Your task to perform on an android device: turn off wifi Image 0: 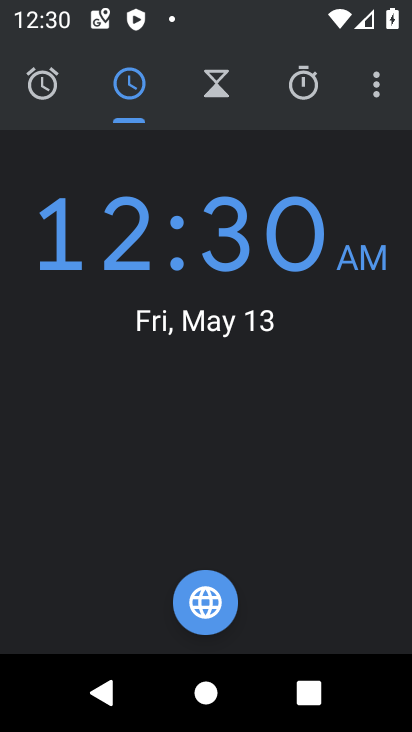
Step 0: press home button
Your task to perform on an android device: turn off wifi Image 1: 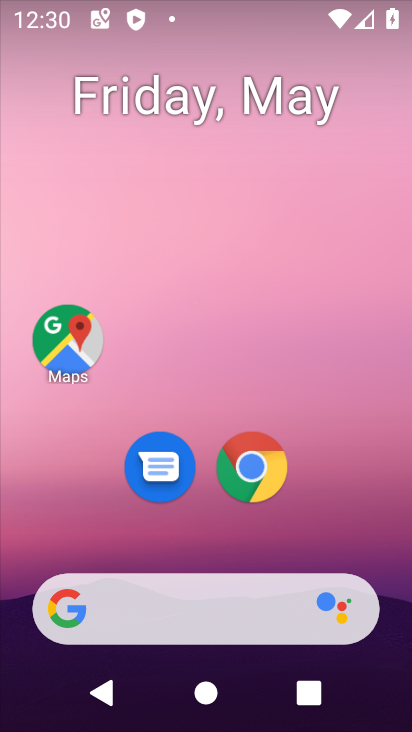
Step 1: drag from (327, 534) to (247, 129)
Your task to perform on an android device: turn off wifi Image 2: 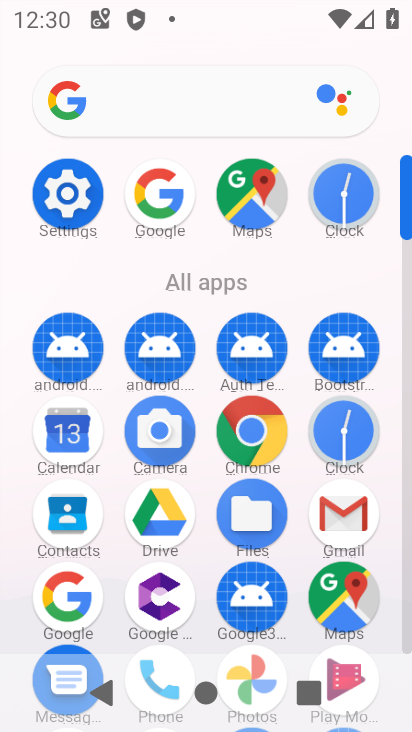
Step 2: click (68, 192)
Your task to perform on an android device: turn off wifi Image 3: 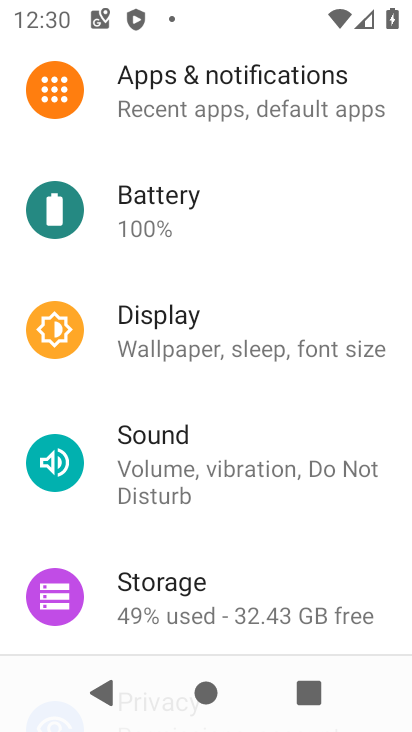
Step 3: drag from (201, 144) to (201, 257)
Your task to perform on an android device: turn off wifi Image 4: 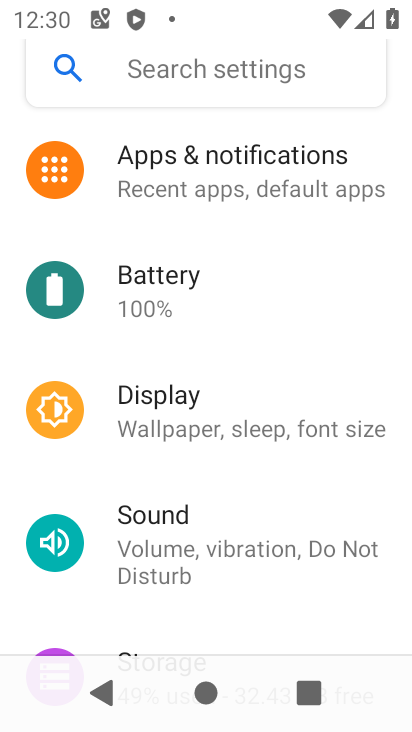
Step 4: drag from (220, 161) to (249, 272)
Your task to perform on an android device: turn off wifi Image 5: 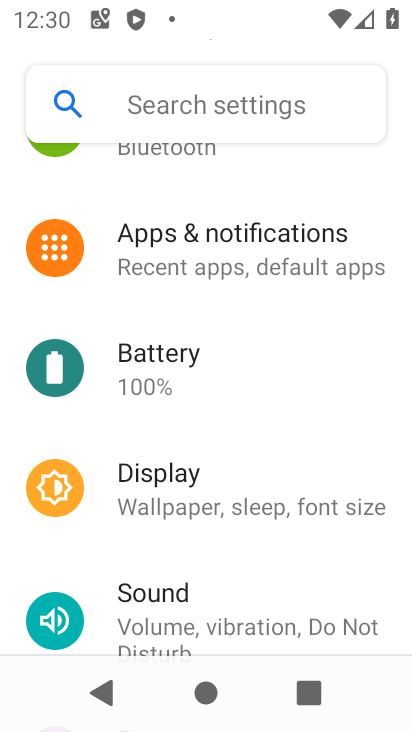
Step 5: drag from (222, 185) to (244, 312)
Your task to perform on an android device: turn off wifi Image 6: 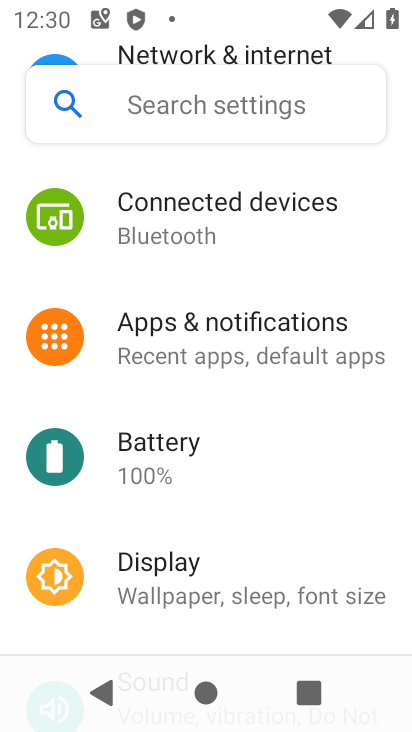
Step 6: drag from (253, 229) to (283, 365)
Your task to perform on an android device: turn off wifi Image 7: 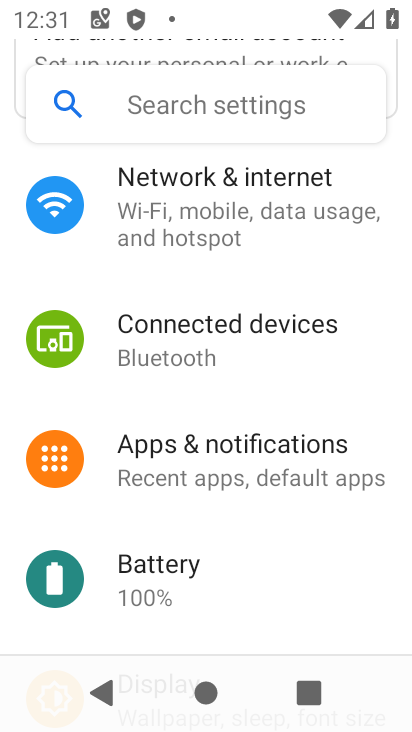
Step 7: drag from (259, 268) to (290, 379)
Your task to perform on an android device: turn off wifi Image 8: 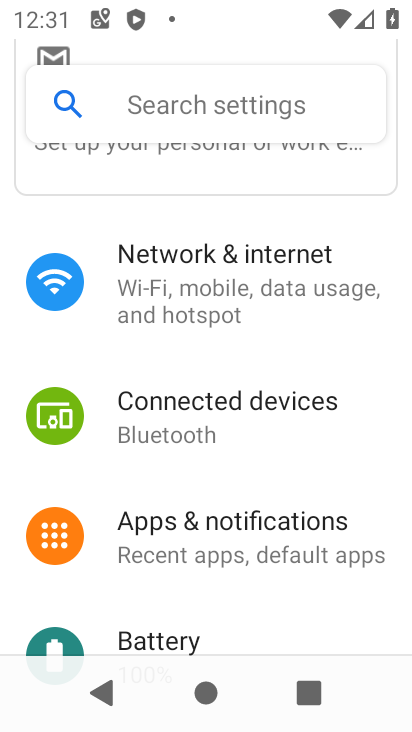
Step 8: click (239, 268)
Your task to perform on an android device: turn off wifi Image 9: 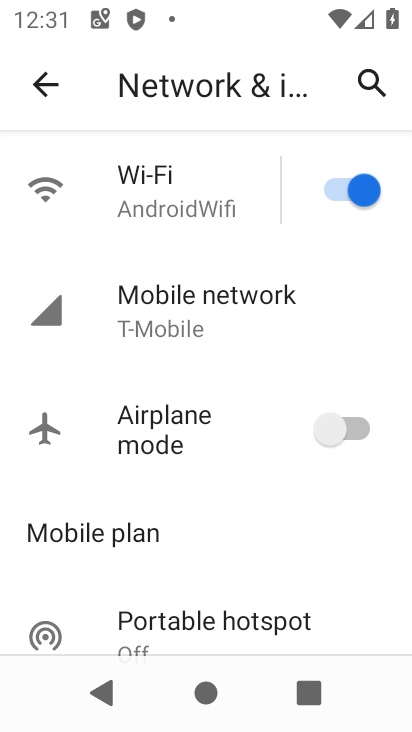
Step 9: click (361, 187)
Your task to perform on an android device: turn off wifi Image 10: 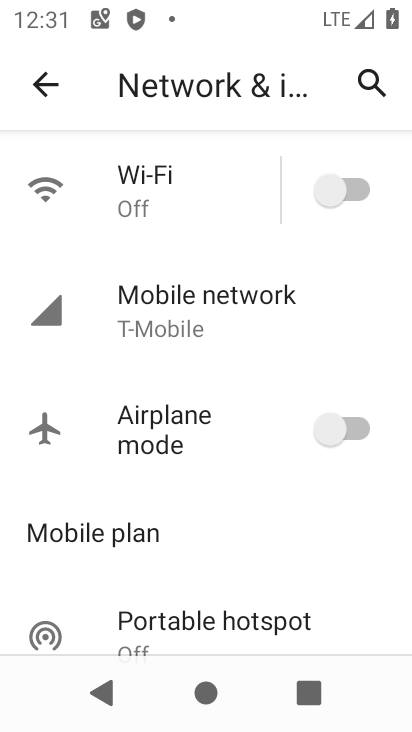
Step 10: task complete